Your task to perform on an android device: Go to eBay Image 0: 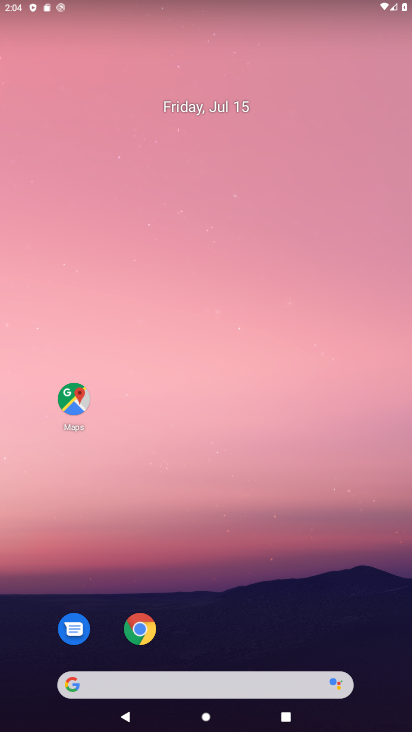
Step 0: press home button
Your task to perform on an android device: Go to eBay Image 1: 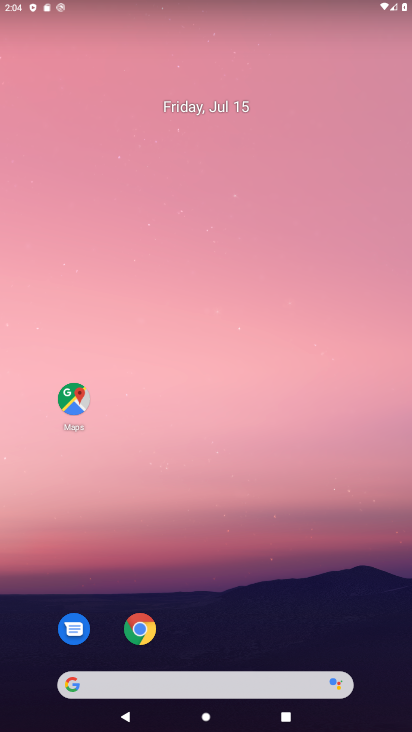
Step 1: drag from (247, 645) to (244, 129)
Your task to perform on an android device: Go to eBay Image 2: 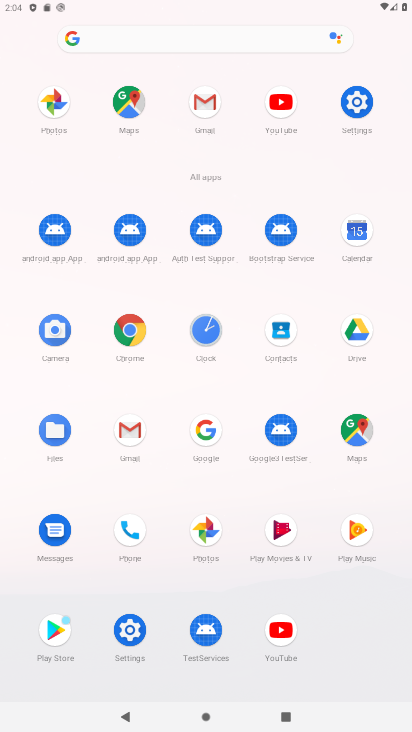
Step 2: click (201, 433)
Your task to perform on an android device: Go to eBay Image 3: 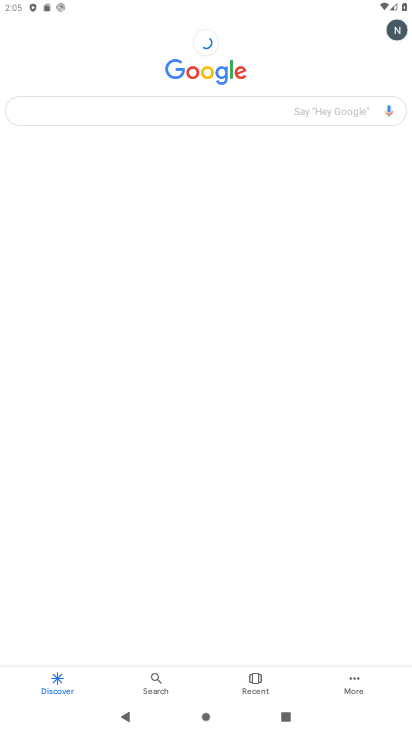
Step 3: click (192, 112)
Your task to perform on an android device: Go to eBay Image 4: 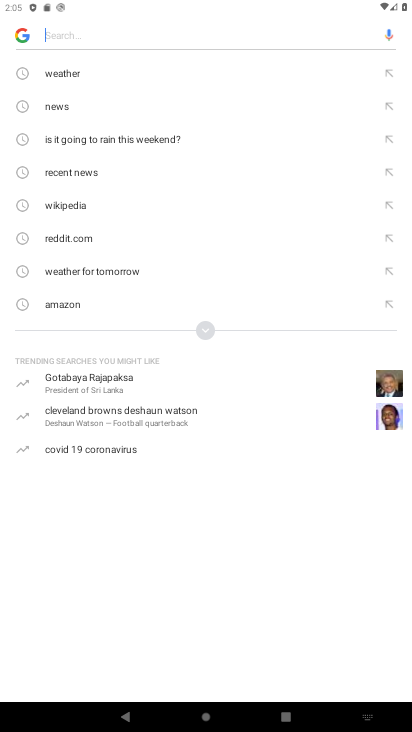
Step 4: type "ebay"
Your task to perform on an android device: Go to eBay Image 5: 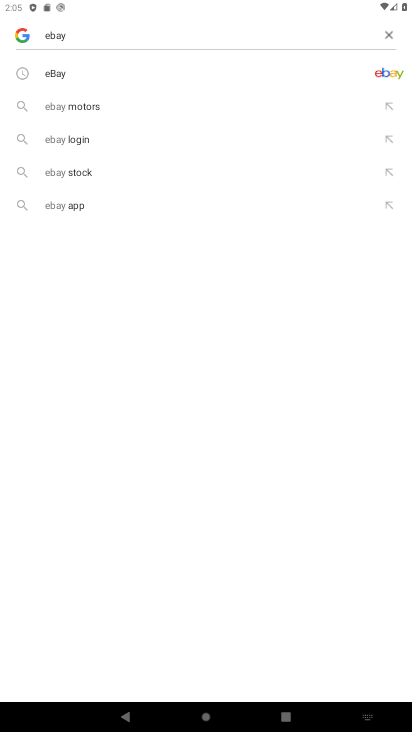
Step 5: click (145, 68)
Your task to perform on an android device: Go to eBay Image 6: 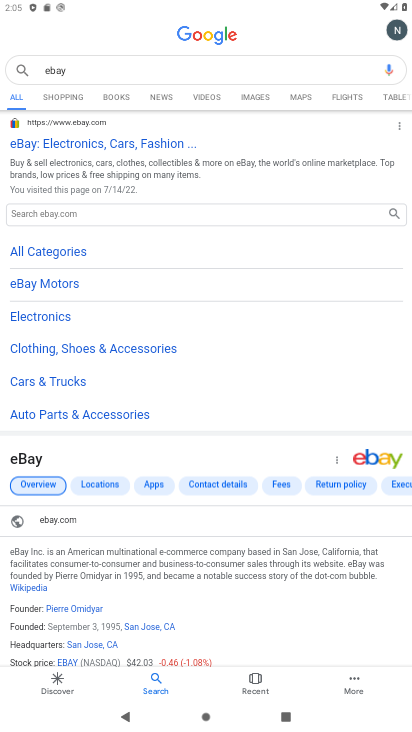
Step 6: click (131, 148)
Your task to perform on an android device: Go to eBay Image 7: 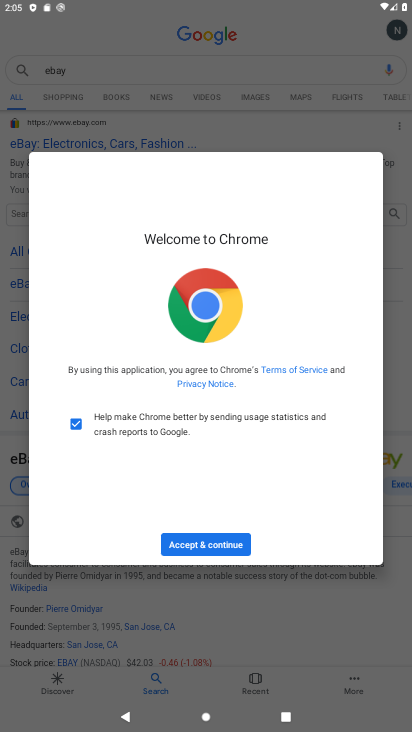
Step 7: click (197, 546)
Your task to perform on an android device: Go to eBay Image 8: 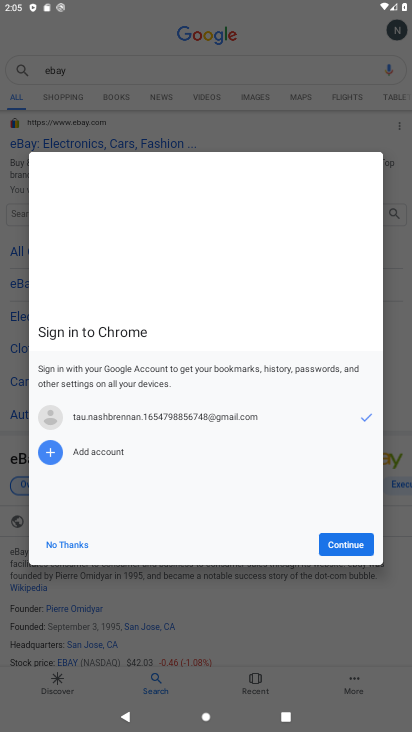
Step 8: click (346, 544)
Your task to perform on an android device: Go to eBay Image 9: 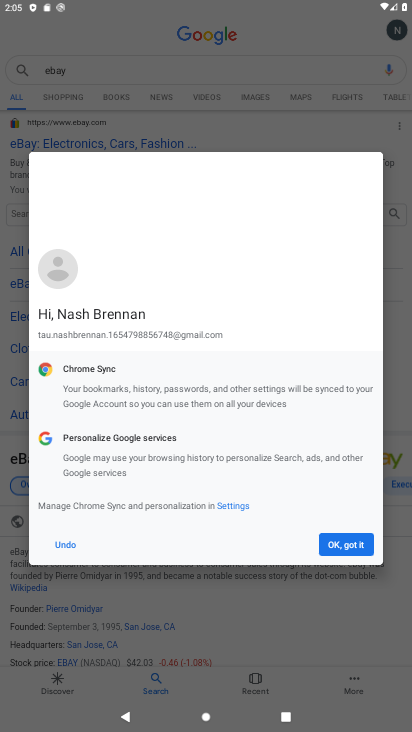
Step 9: click (346, 544)
Your task to perform on an android device: Go to eBay Image 10: 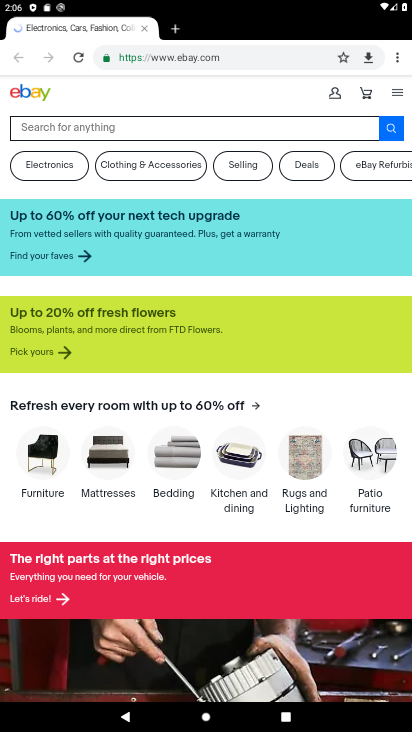
Step 10: task complete